Your task to perform on an android device: toggle airplane mode Image 0: 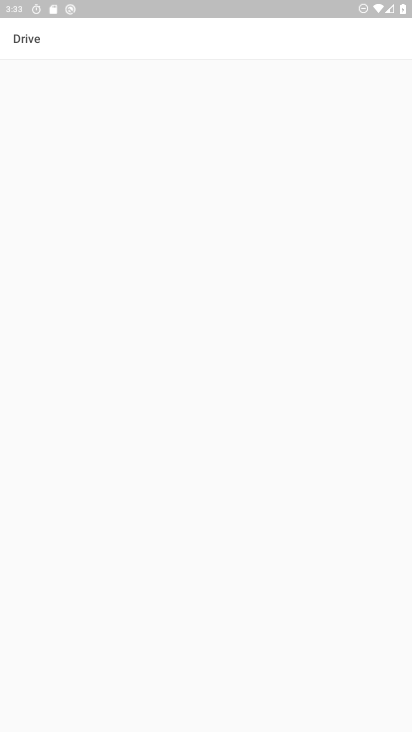
Step 0: press home button
Your task to perform on an android device: toggle airplane mode Image 1: 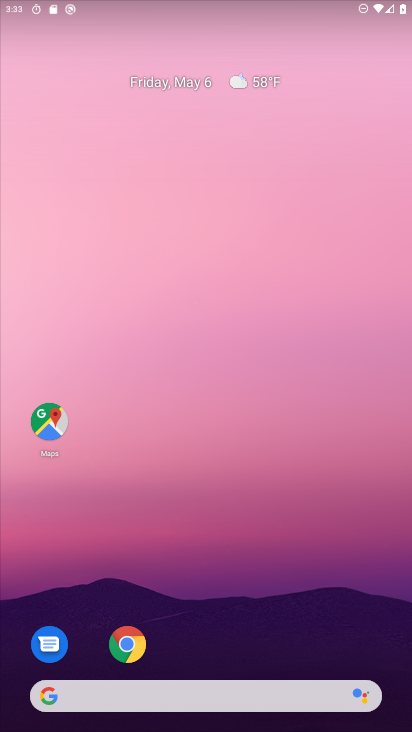
Step 1: drag from (219, 722) to (212, 316)
Your task to perform on an android device: toggle airplane mode Image 2: 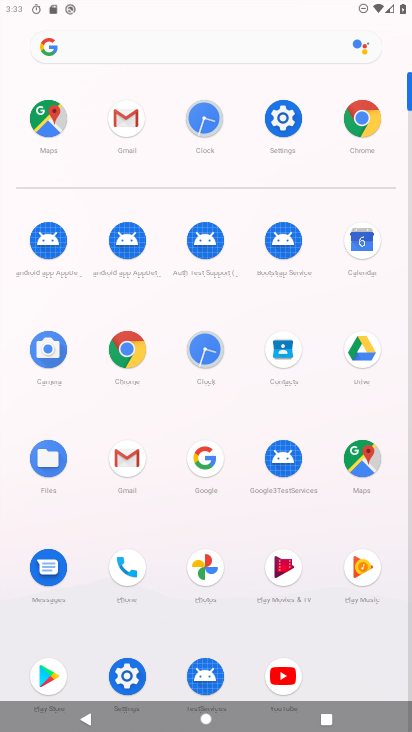
Step 2: click (278, 123)
Your task to perform on an android device: toggle airplane mode Image 3: 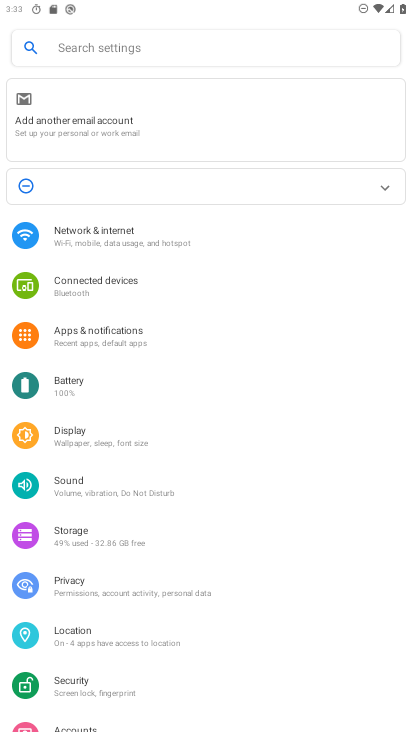
Step 3: click (110, 236)
Your task to perform on an android device: toggle airplane mode Image 4: 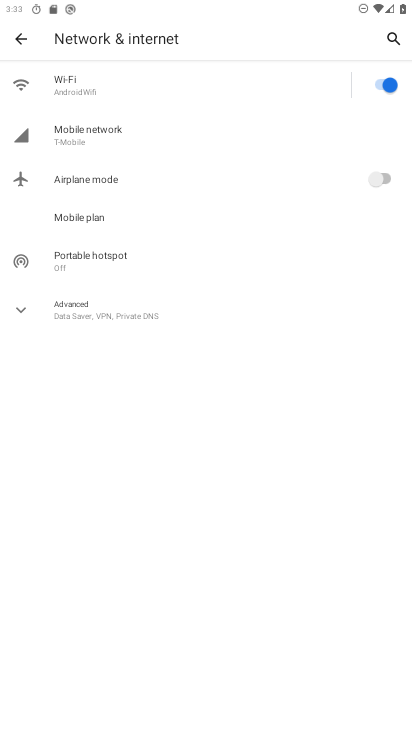
Step 4: click (381, 177)
Your task to perform on an android device: toggle airplane mode Image 5: 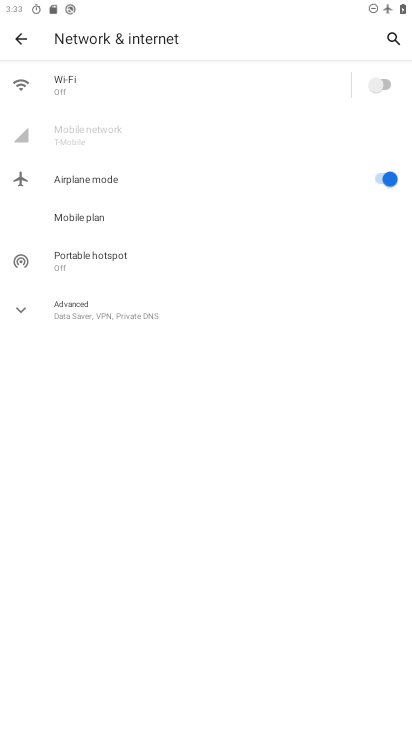
Step 5: task complete